Your task to perform on an android device: Open Google Image 0: 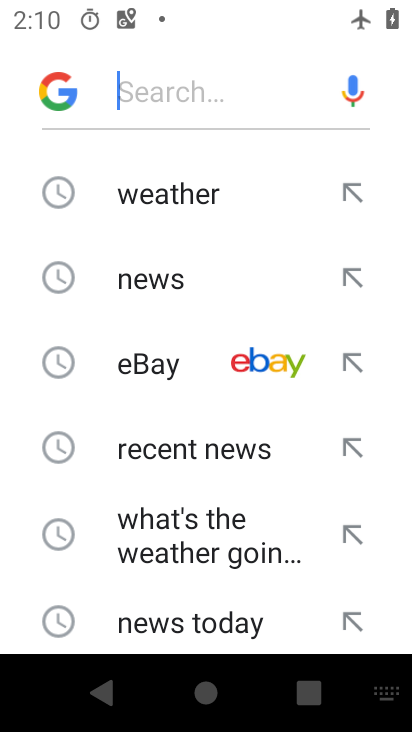
Step 0: press home button
Your task to perform on an android device: Open Google Image 1: 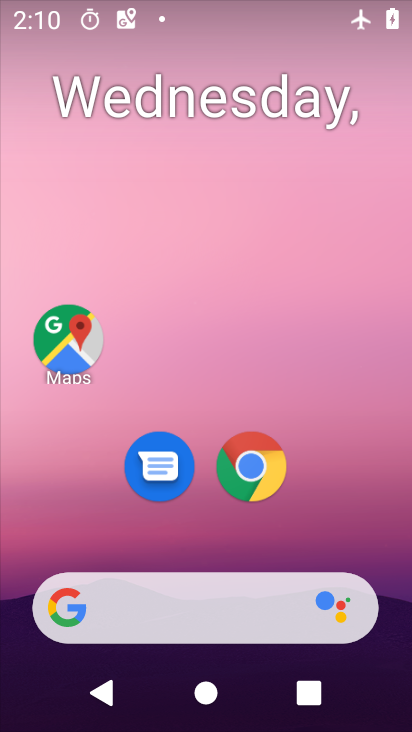
Step 1: click (175, 590)
Your task to perform on an android device: Open Google Image 2: 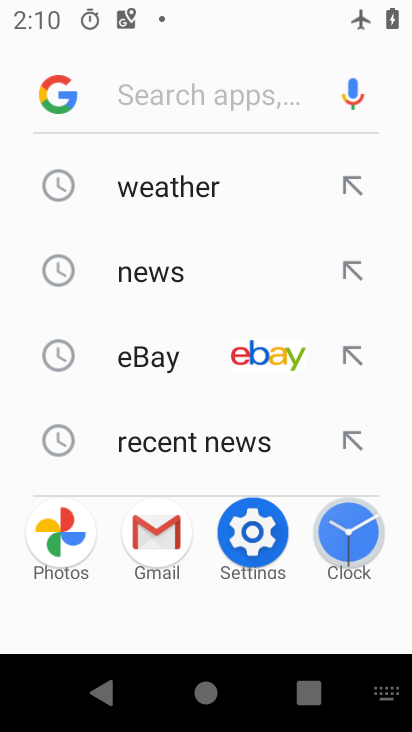
Step 2: task complete